Your task to perform on an android device: What's the weather today? Image 0: 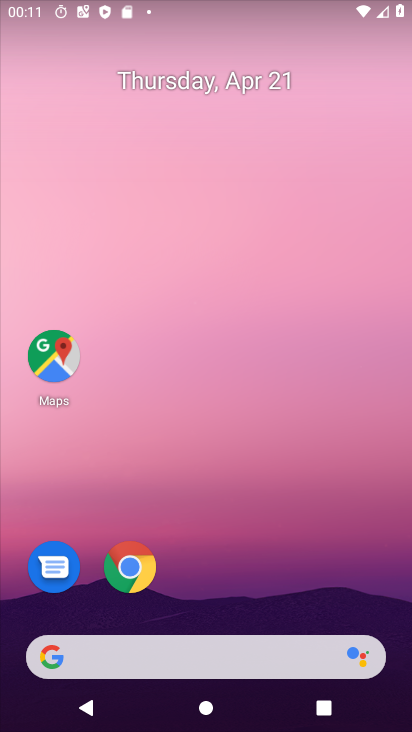
Step 0: drag from (225, 510) to (231, 239)
Your task to perform on an android device: What's the weather today? Image 1: 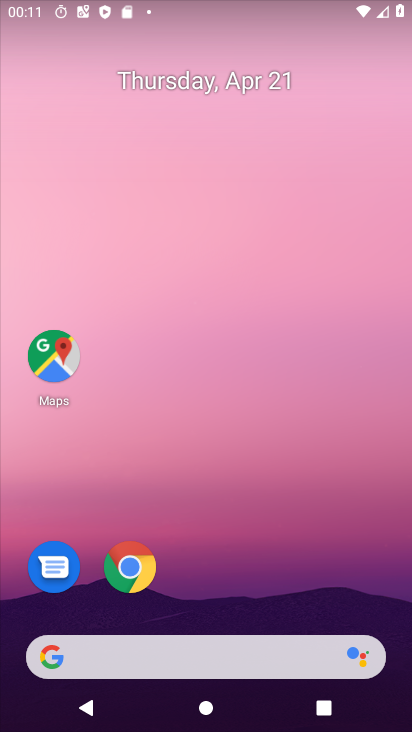
Step 1: drag from (236, 588) to (265, 99)
Your task to perform on an android device: What's the weather today? Image 2: 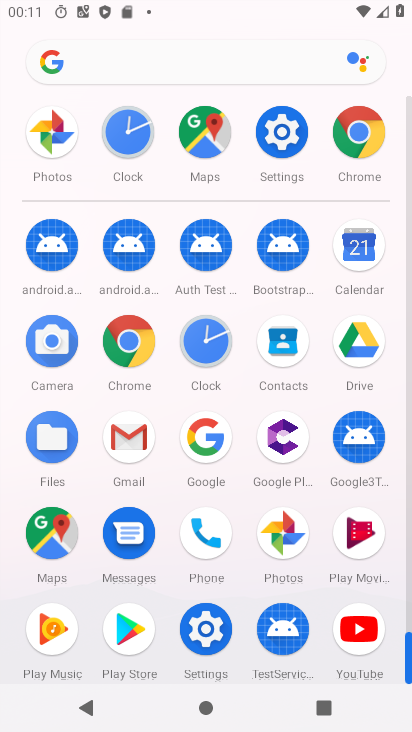
Step 2: click (118, 328)
Your task to perform on an android device: What's the weather today? Image 3: 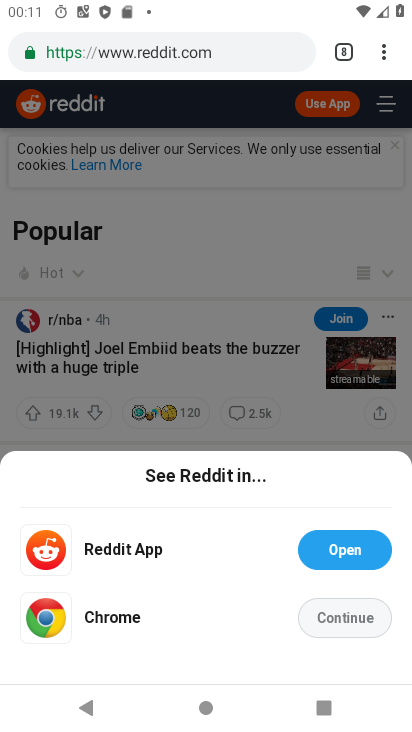
Step 3: click (377, 49)
Your task to perform on an android device: What's the weather today? Image 4: 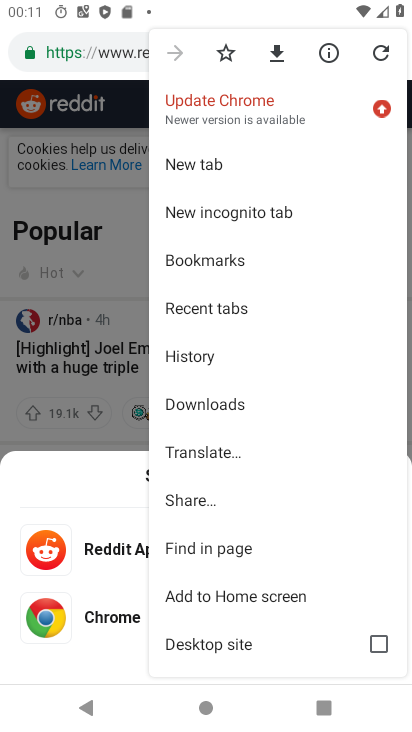
Step 4: click (228, 167)
Your task to perform on an android device: What's the weather today? Image 5: 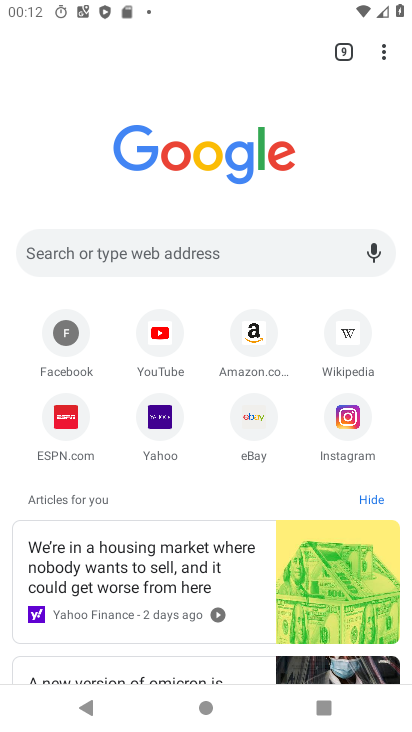
Step 5: click (245, 247)
Your task to perform on an android device: What's the weather today? Image 6: 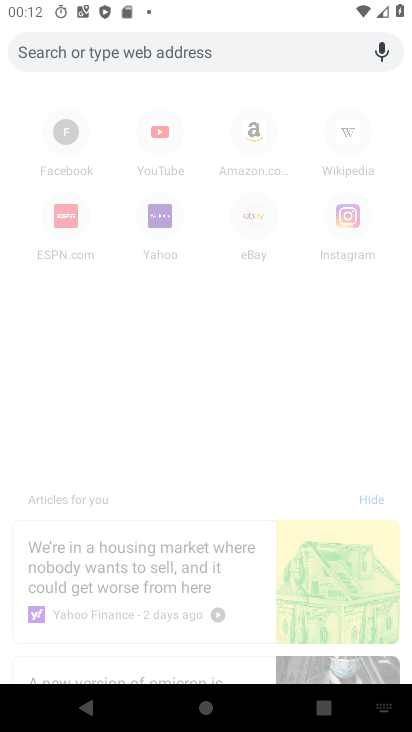
Step 6: type "What's the weather today?"
Your task to perform on an android device: What's the weather today? Image 7: 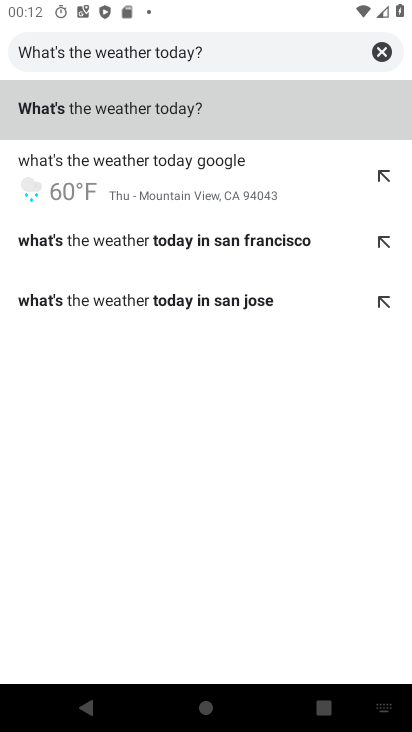
Step 7: click (117, 182)
Your task to perform on an android device: What's the weather today? Image 8: 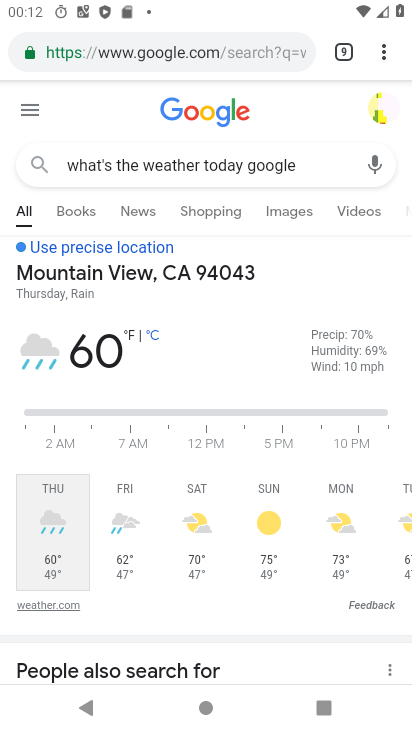
Step 8: click (117, 182)
Your task to perform on an android device: What's the weather today? Image 9: 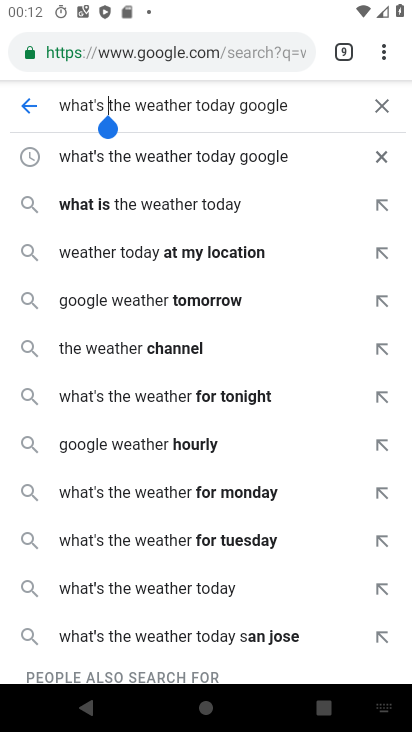
Step 9: click (209, 162)
Your task to perform on an android device: What's the weather today? Image 10: 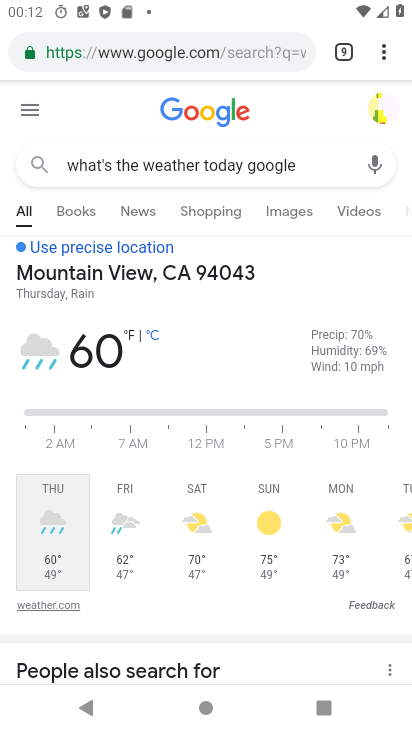
Step 10: task complete